Your task to perform on an android device: change the clock style Image 0: 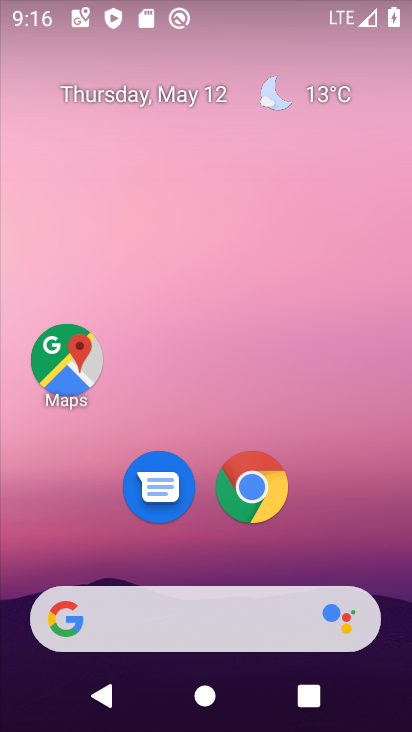
Step 0: drag from (365, 540) to (322, 16)
Your task to perform on an android device: change the clock style Image 1: 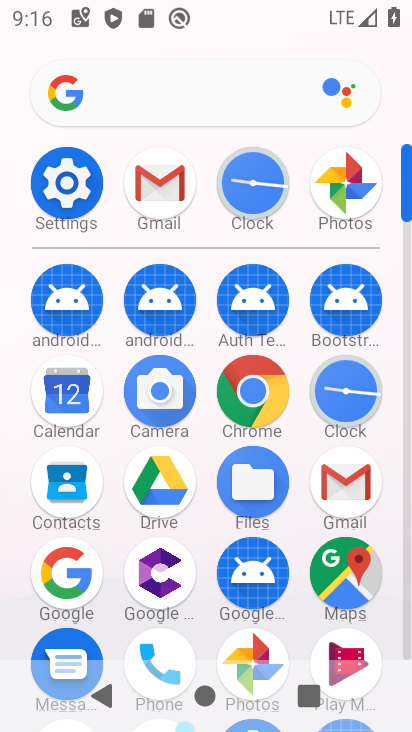
Step 1: click (260, 201)
Your task to perform on an android device: change the clock style Image 2: 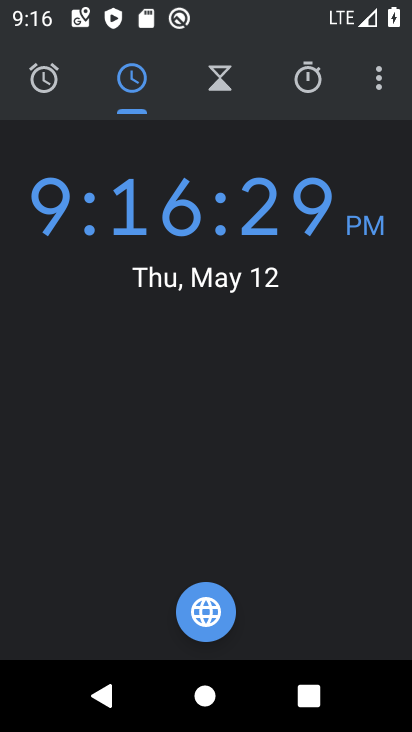
Step 2: click (384, 87)
Your task to perform on an android device: change the clock style Image 3: 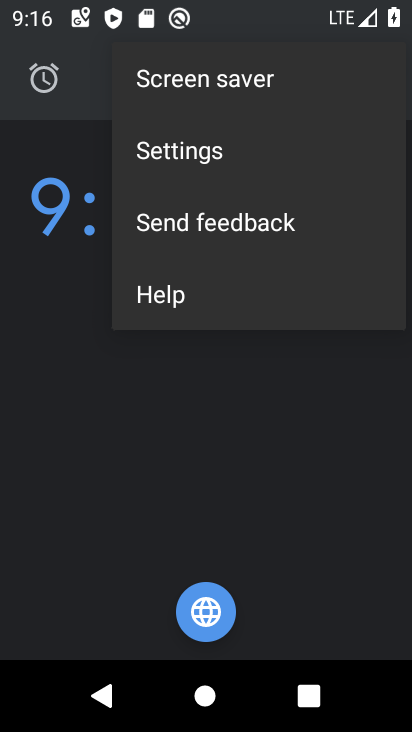
Step 3: click (205, 148)
Your task to perform on an android device: change the clock style Image 4: 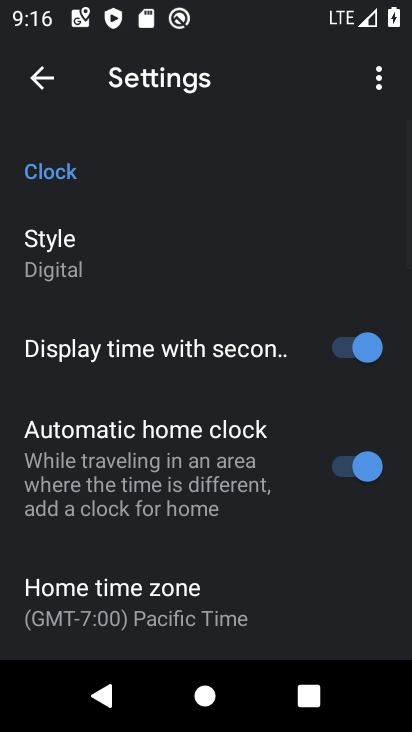
Step 4: click (44, 269)
Your task to perform on an android device: change the clock style Image 5: 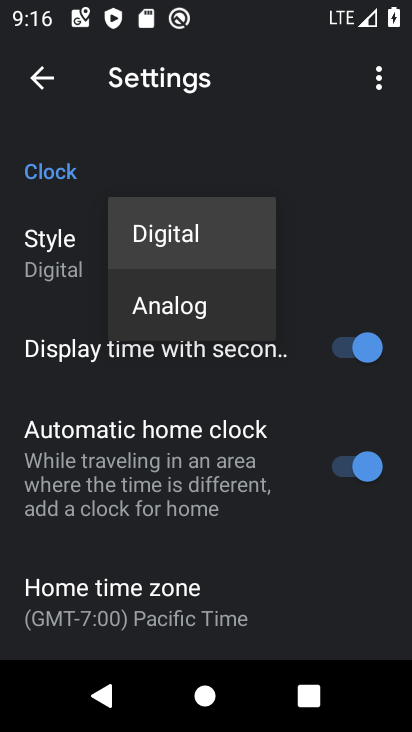
Step 5: click (156, 313)
Your task to perform on an android device: change the clock style Image 6: 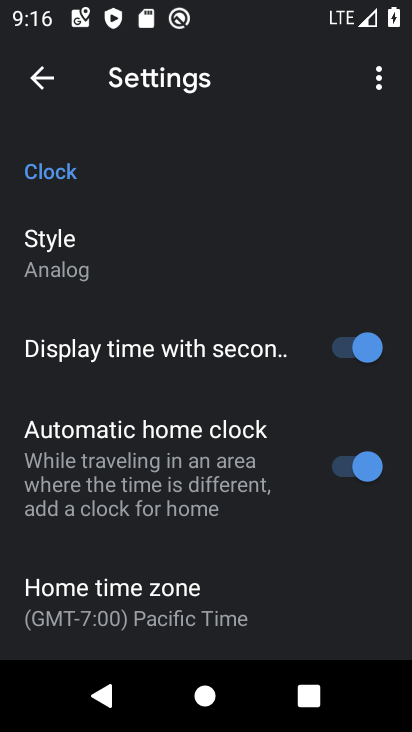
Step 6: task complete